Your task to perform on an android device: Open network settings Image 0: 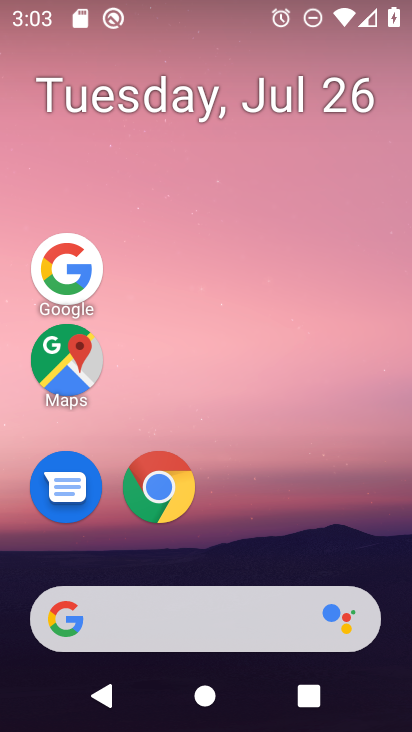
Step 0: drag from (204, 595) to (252, 120)
Your task to perform on an android device: Open network settings Image 1: 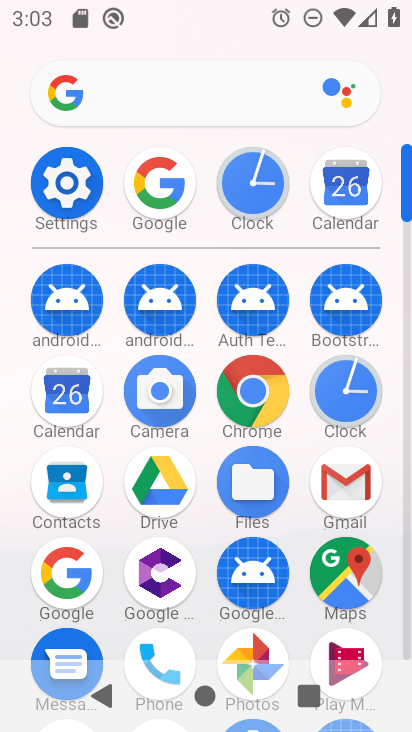
Step 1: click (61, 203)
Your task to perform on an android device: Open network settings Image 2: 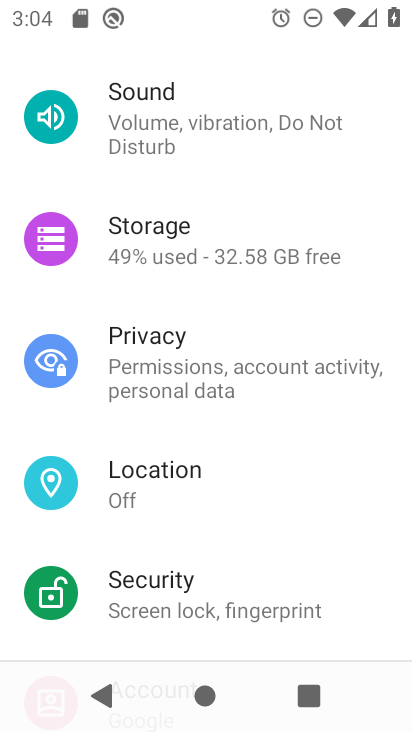
Step 2: drag from (185, 287) to (214, 588)
Your task to perform on an android device: Open network settings Image 3: 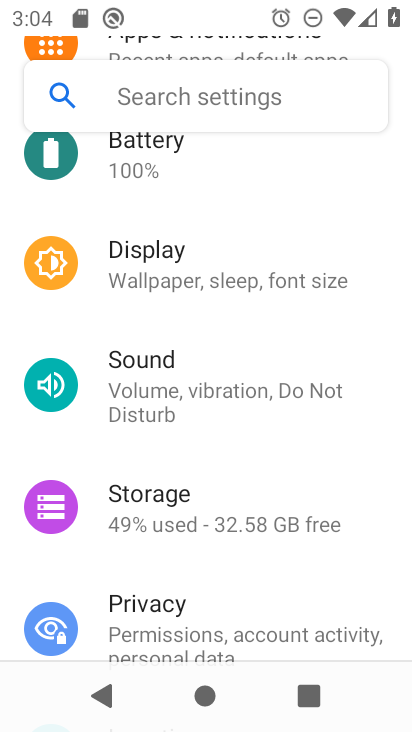
Step 3: drag from (173, 263) to (221, 730)
Your task to perform on an android device: Open network settings Image 4: 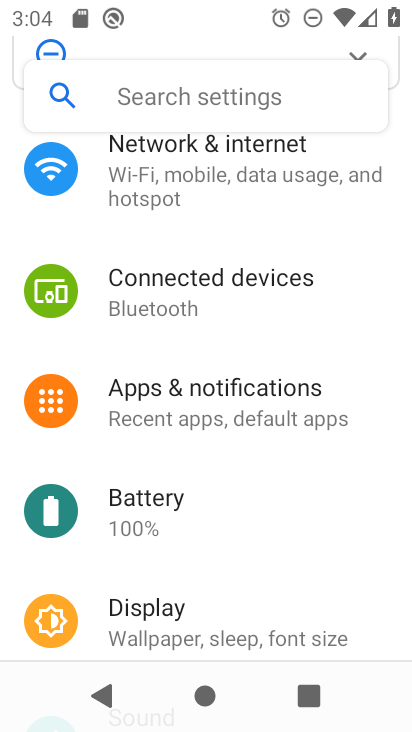
Step 4: drag from (214, 442) to (237, 730)
Your task to perform on an android device: Open network settings Image 5: 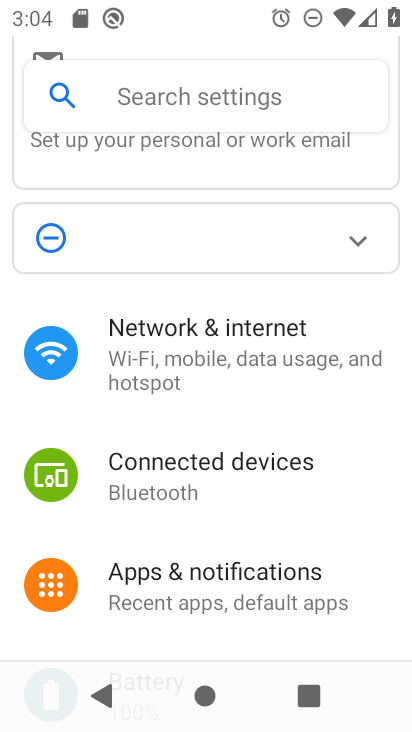
Step 5: click (215, 359)
Your task to perform on an android device: Open network settings Image 6: 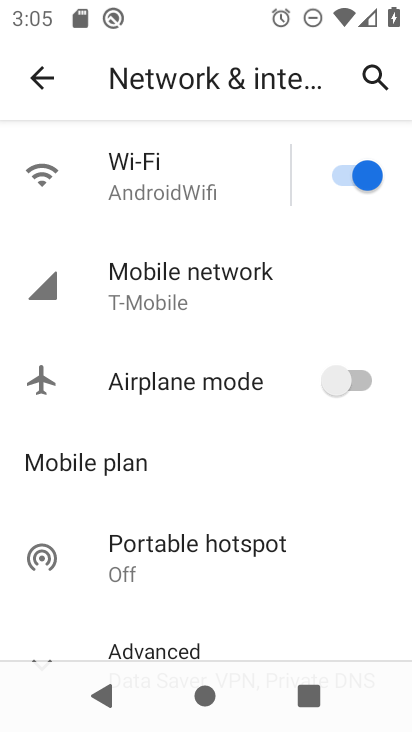
Step 6: click (214, 296)
Your task to perform on an android device: Open network settings Image 7: 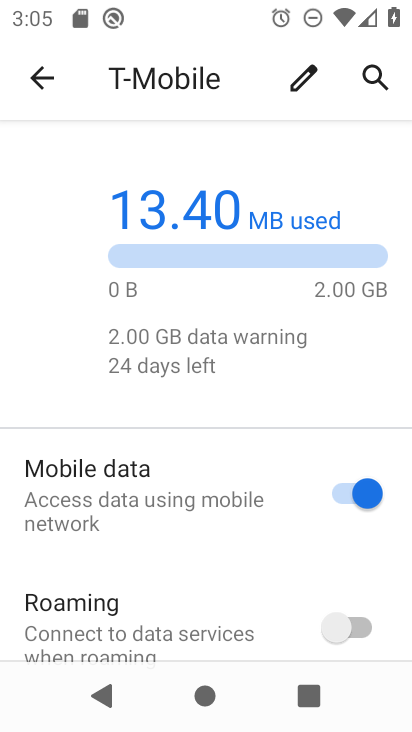
Step 7: task complete